Your task to perform on an android device: turn on data saver in the chrome app Image 0: 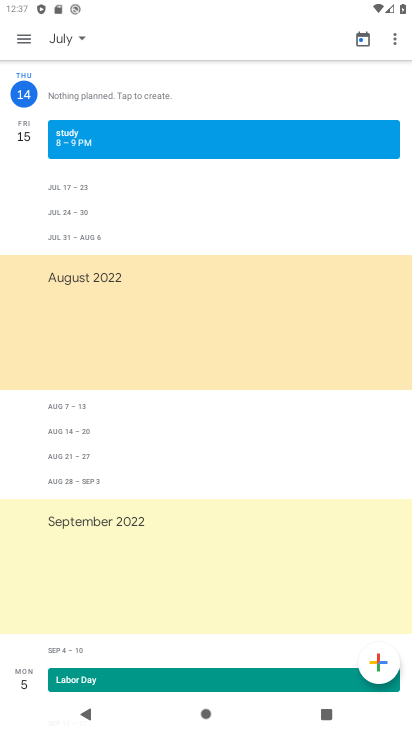
Step 0: press home button
Your task to perform on an android device: turn on data saver in the chrome app Image 1: 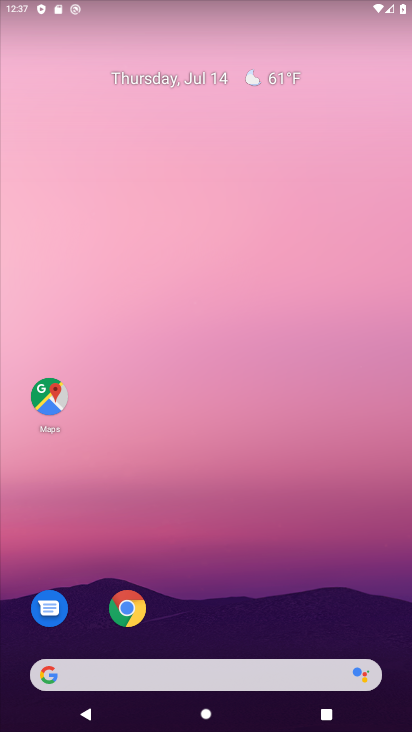
Step 1: drag from (338, 614) to (372, 114)
Your task to perform on an android device: turn on data saver in the chrome app Image 2: 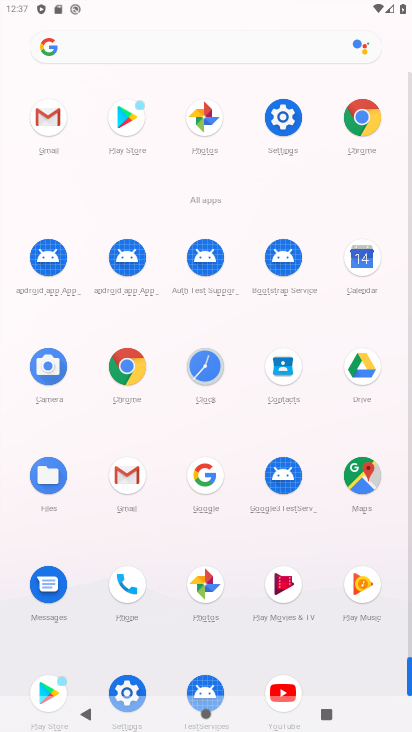
Step 2: click (133, 373)
Your task to perform on an android device: turn on data saver in the chrome app Image 3: 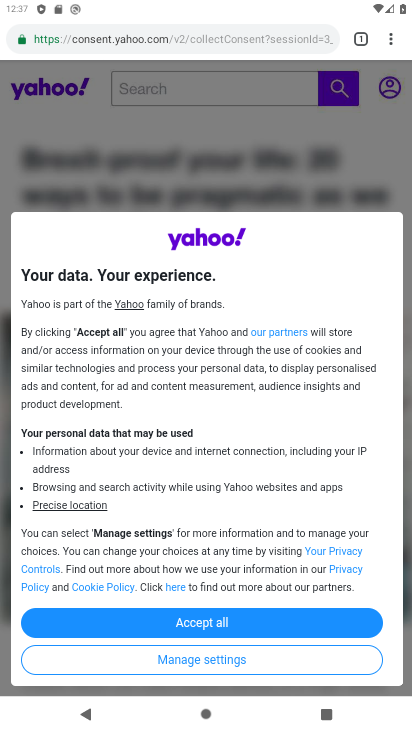
Step 3: click (393, 40)
Your task to perform on an android device: turn on data saver in the chrome app Image 4: 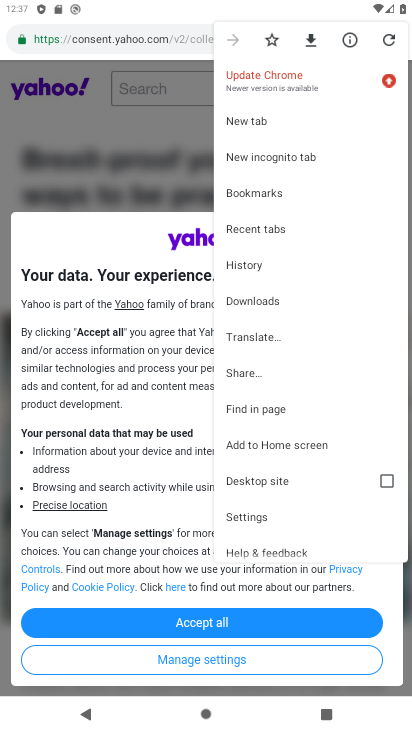
Step 4: drag from (355, 353) to (349, 262)
Your task to perform on an android device: turn on data saver in the chrome app Image 5: 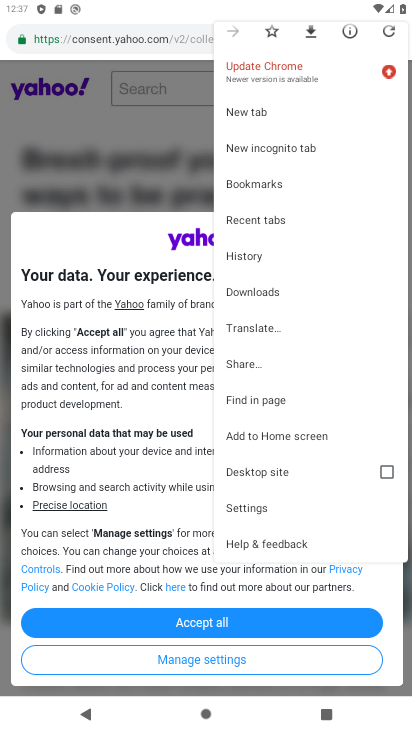
Step 5: click (293, 513)
Your task to perform on an android device: turn on data saver in the chrome app Image 6: 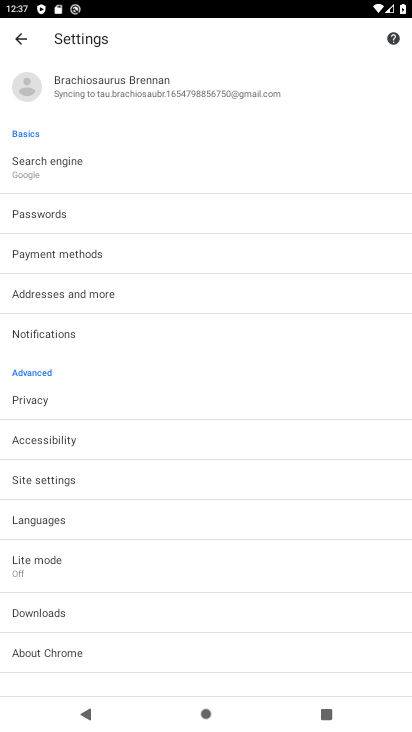
Step 6: drag from (293, 513) to (294, 411)
Your task to perform on an android device: turn on data saver in the chrome app Image 7: 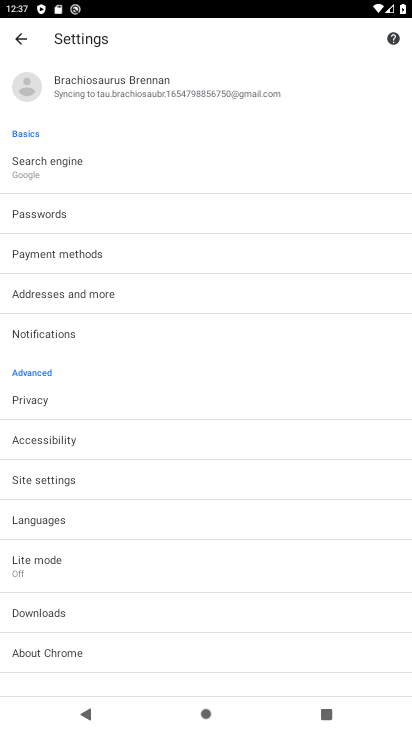
Step 7: click (107, 563)
Your task to perform on an android device: turn on data saver in the chrome app Image 8: 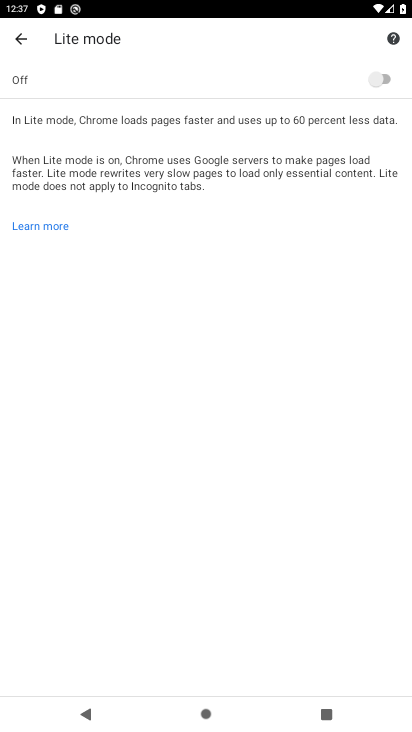
Step 8: click (379, 80)
Your task to perform on an android device: turn on data saver in the chrome app Image 9: 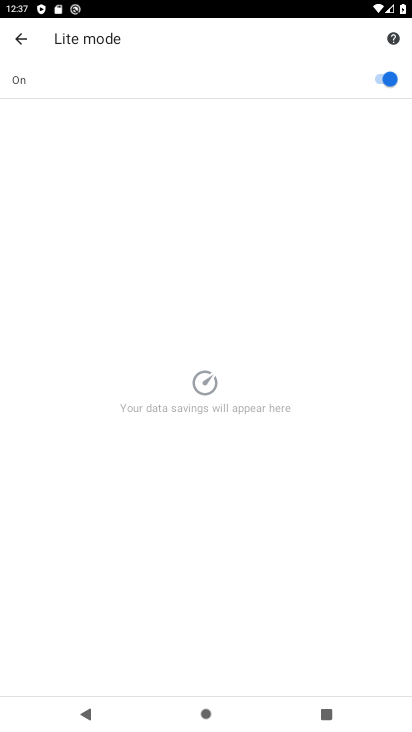
Step 9: task complete